Your task to perform on an android device: Open the phone app and click the voicemail tab. Image 0: 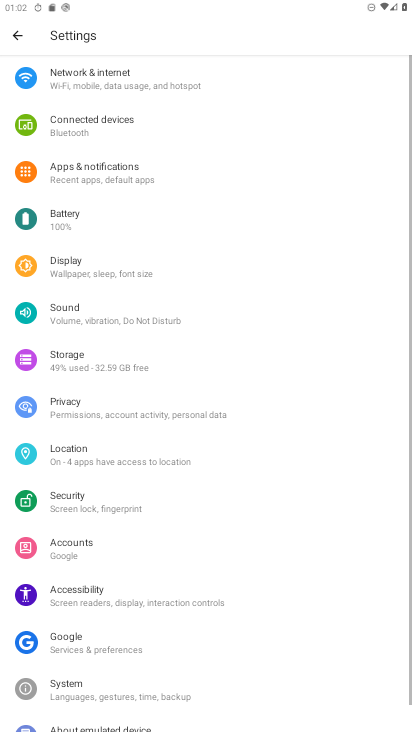
Step 0: press home button
Your task to perform on an android device: Open the phone app and click the voicemail tab. Image 1: 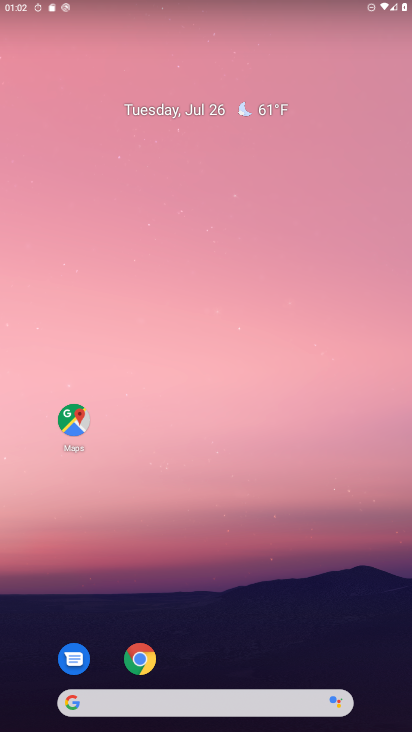
Step 1: drag from (45, 683) to (228, 358)
Your task to perform on an android device: Open the phone app and click the voicemail tab. Image 2: 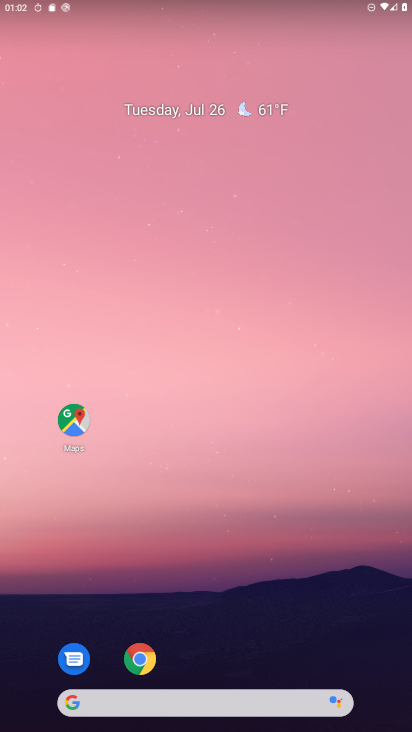
Step 2: drag from (75, 664) to (310, 7)
Your task to perform on an android device: Open the phone app and click the voicemail tab. Image 3: 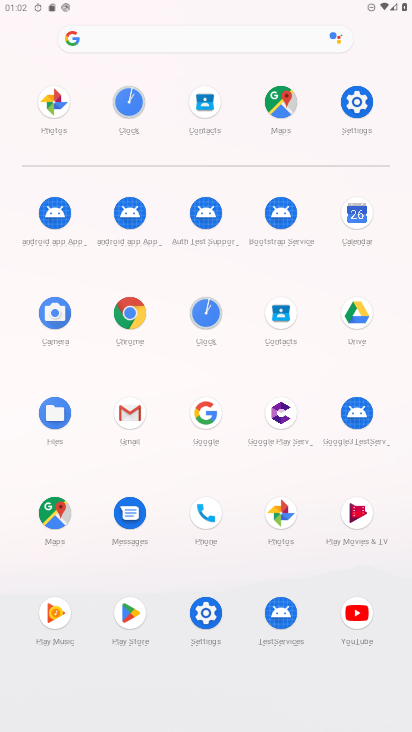
Step 3: click (202, 513)
Your task to perform on an android device: Open the phone app and click the voicemail tab. Image 4: 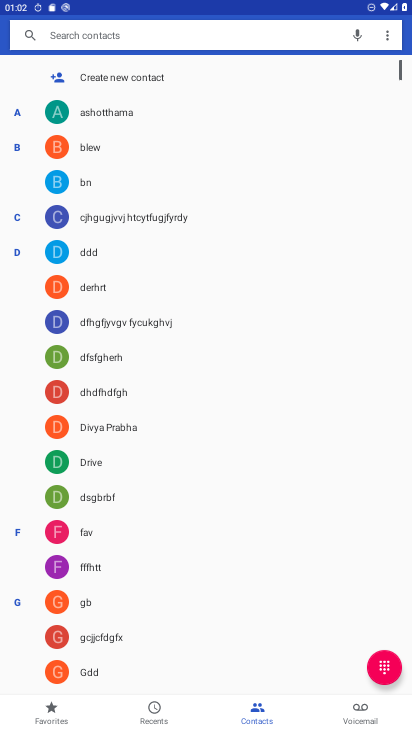
Step 4: click (363, 715)
Your task to perform on an android device: Open the phone app and click the voicemail tab. Image 5: 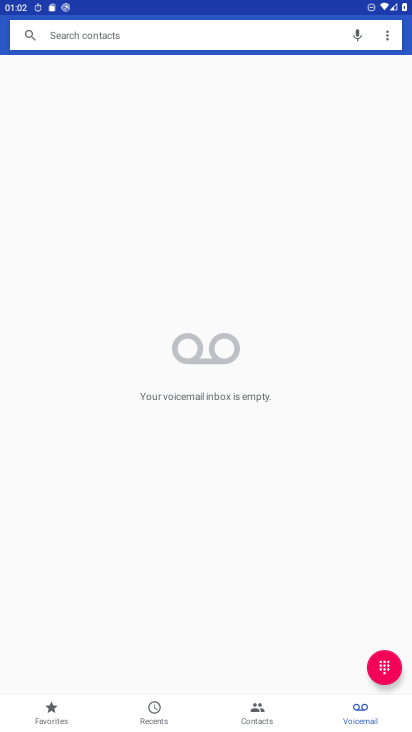
Step 5: task complete